Your task to perform on an android device: search for starred emails in the gmail app Image 0: 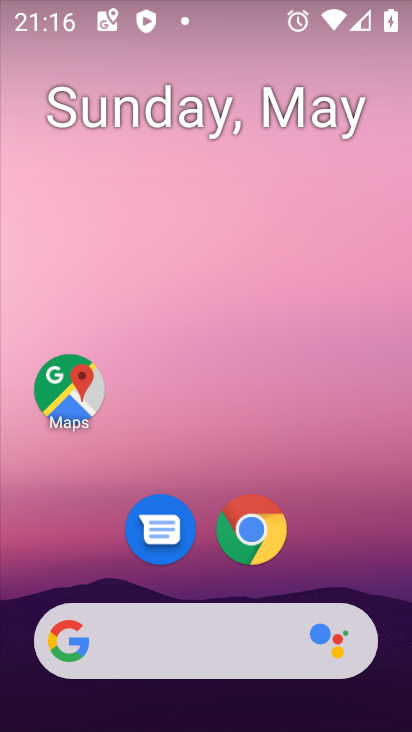
Step 0: drag from (366, 594) to (364, 0)
Your task to perform on an android device: search for starred emails in the gmail app Image 1: 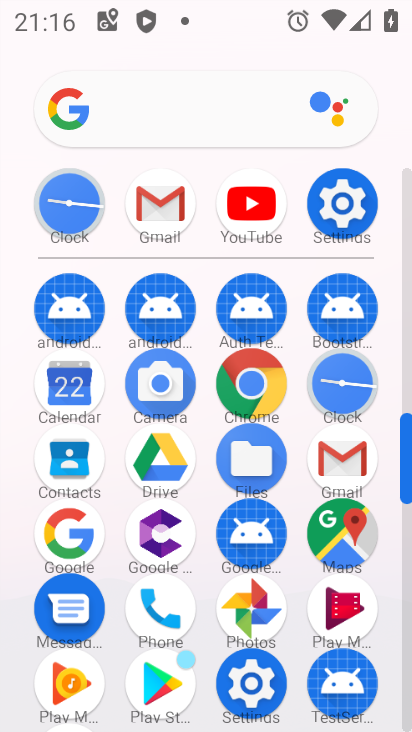
Step 1: click (162, 207)
Your task to perform on an android device: search for starred emails in the gmail app Image 2: 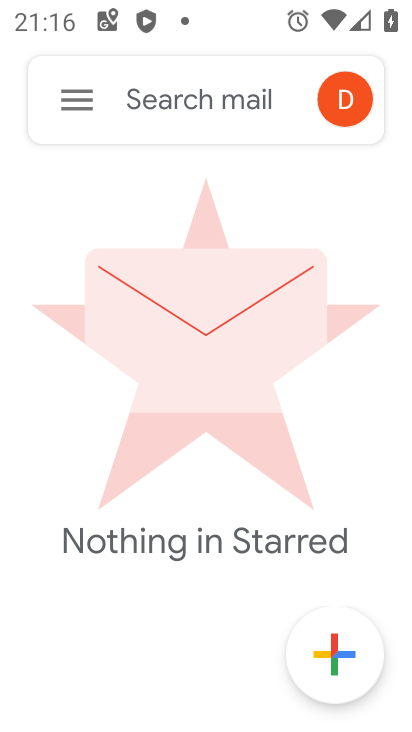
Step 2: task complete